Your task to perform on an android device: Search for vintage wall art on Etsy. Image 0: 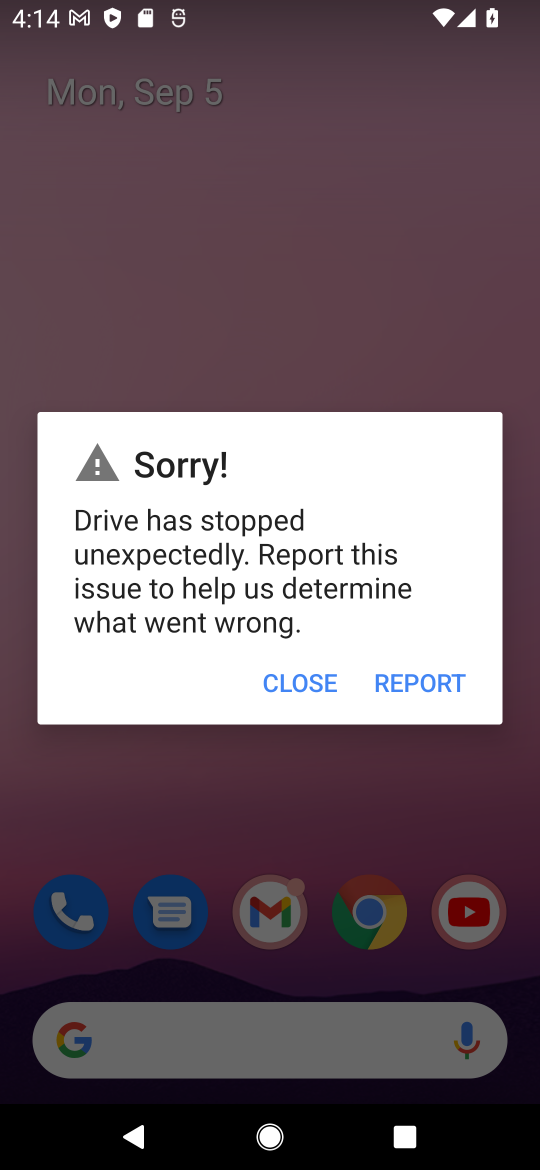
Step 0: press home button
Your task to perform on an android device: Search for vintage wall art on Etsy. Image 1: 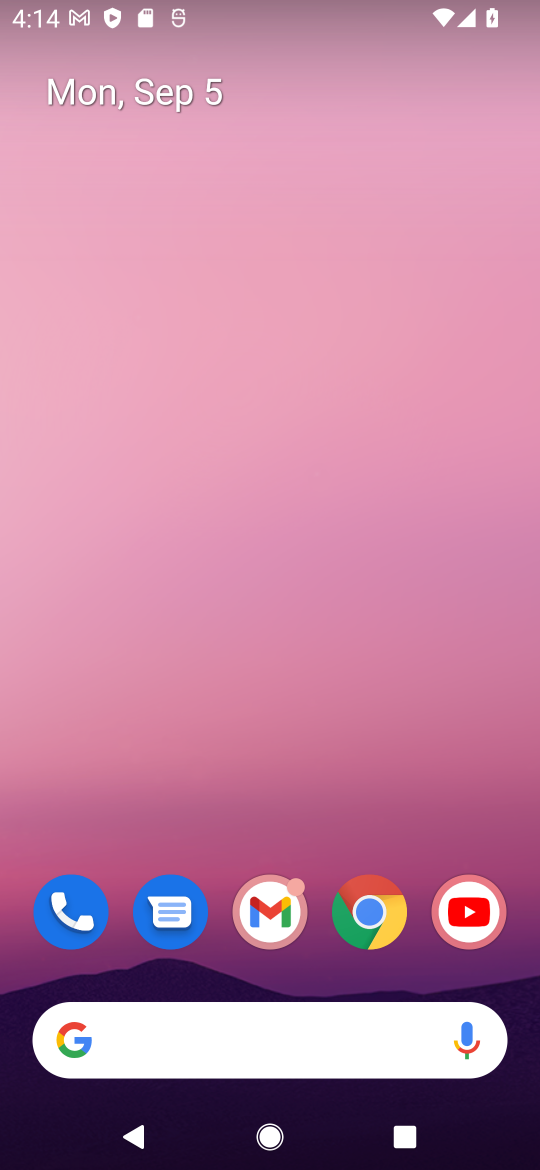
Step 1: click (364, 925)
Your task to perform on an android device: Search for vintage wall art on Etsy. Image 2: 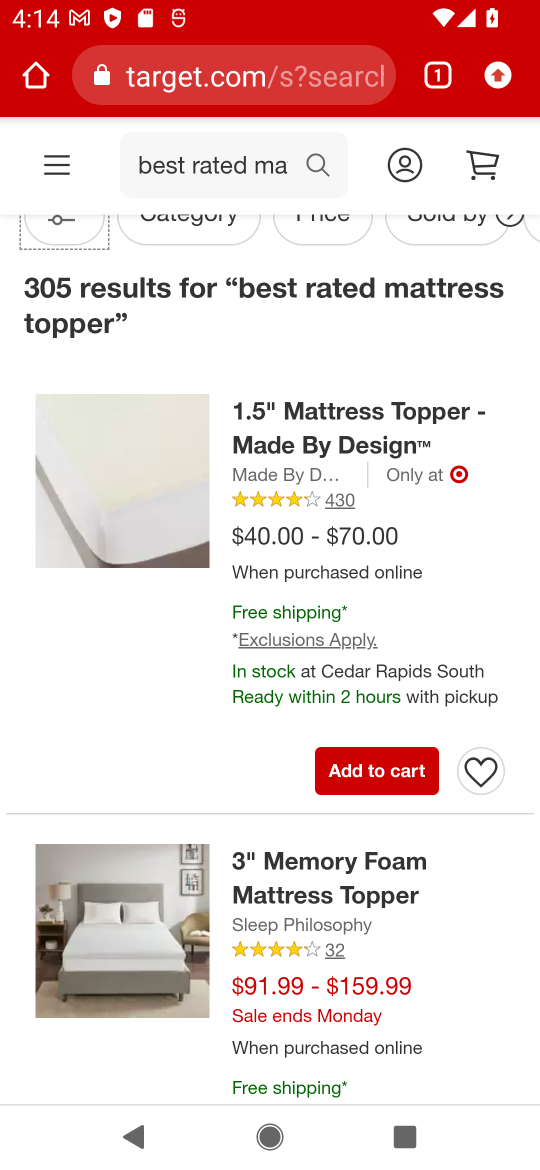
Step 2: click (333, 73)
Your task to perform on an android device: Search for vintage wall art on Etsy. Image 3: 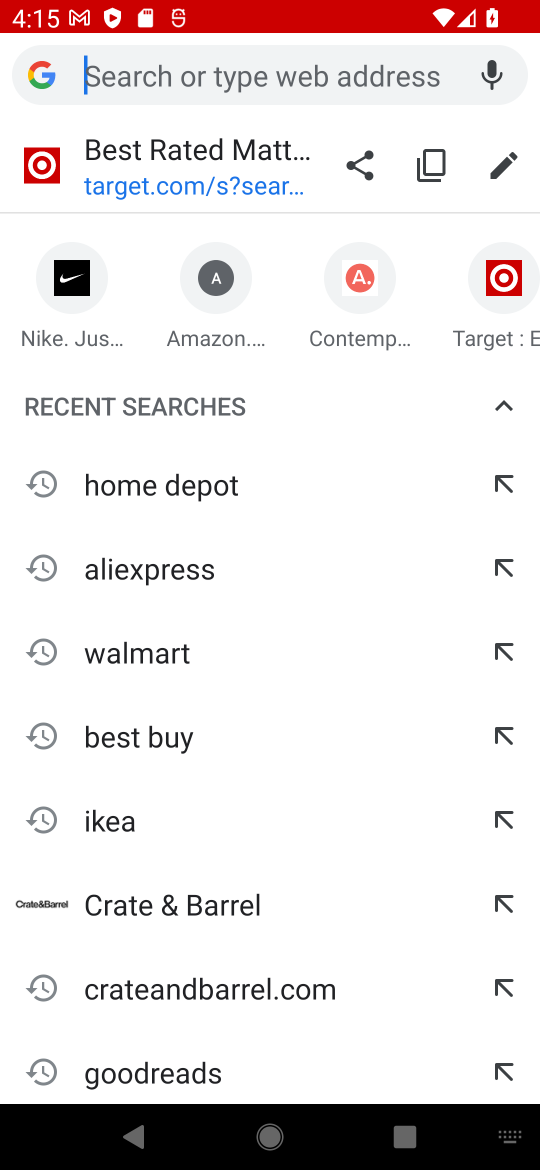
Step 3: type "etsy"
Your task to perform on an android device: Search for vintage wall art on Etsy. Image 4: 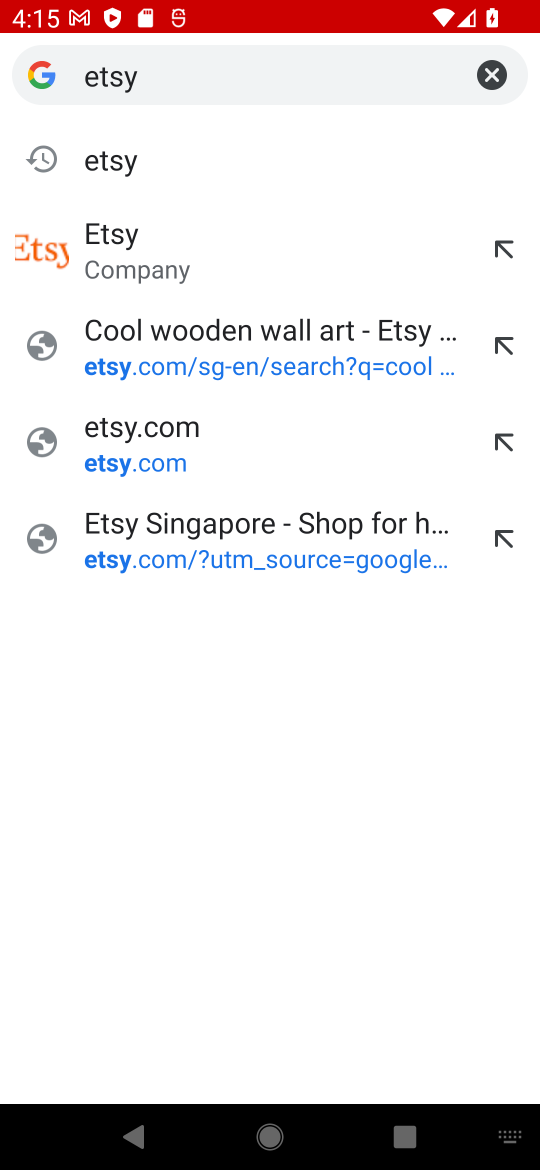
Step 4: task complete